Your task to perform on an android device: toggle notification dots Image 0: 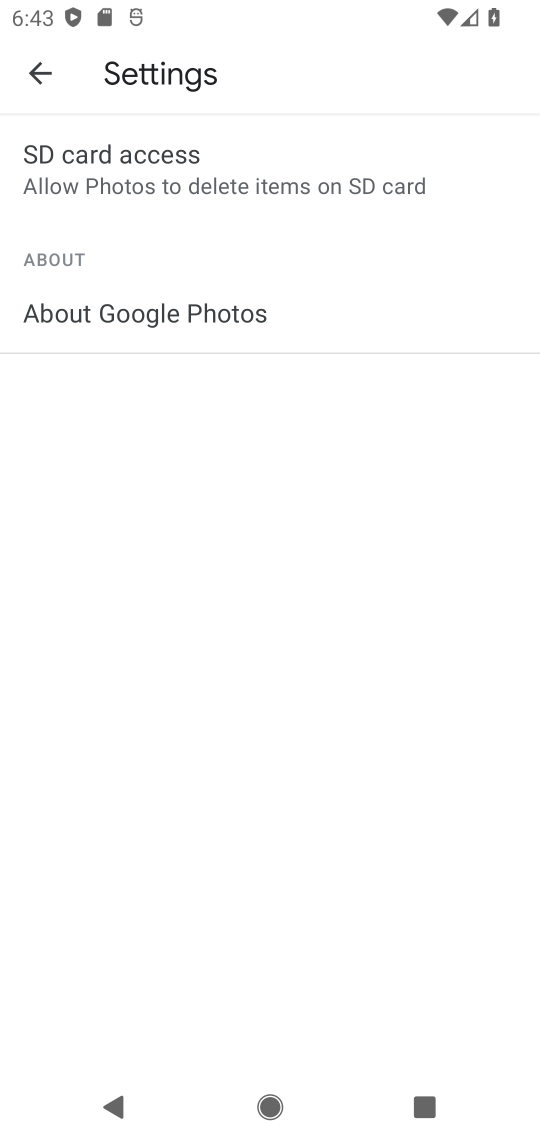
Step 0: press home button
Your task to perform on an android device: toggle notification dots Image 1: 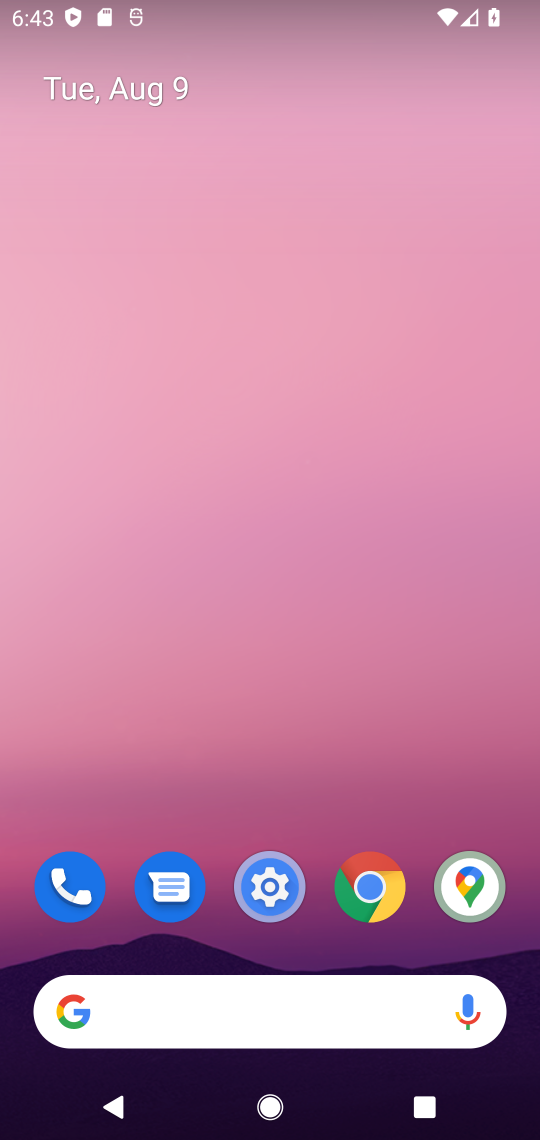
Step 1: click (263, 886)
Your task to perform on an android device: toggle notification dots Image 2: 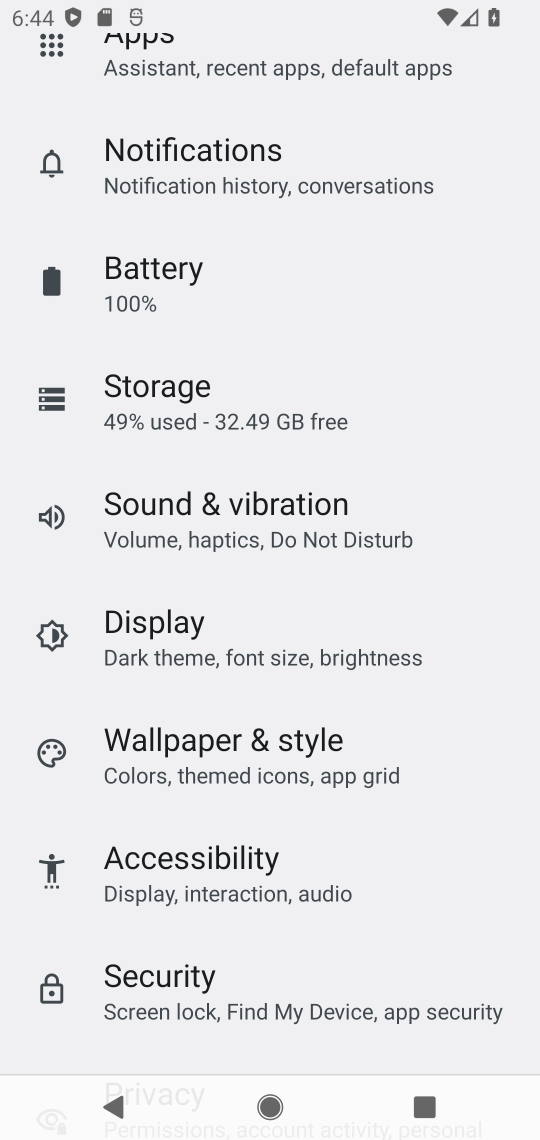
Step 2: click (322, 162)
Your task to perform on an android device: toggle notification dots Image 3: 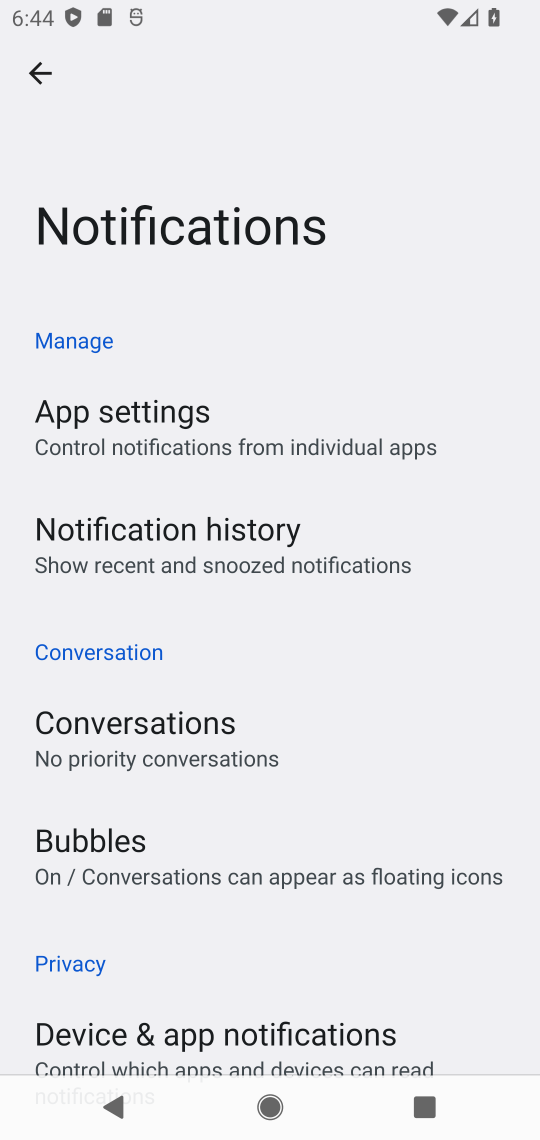
Step 3: drag from (283, 937) to (340, 23)
Your task to perform on an android device: toggle notification dots Image 4: 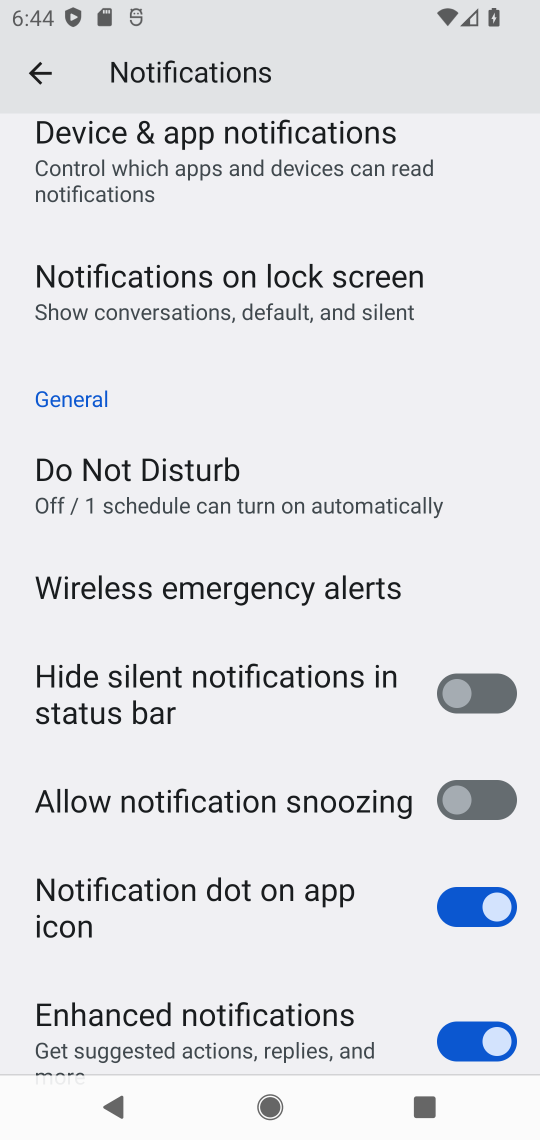
Step 4: click (486, 908)
Your task to perform on an android device: toggle notification dots Image 5: 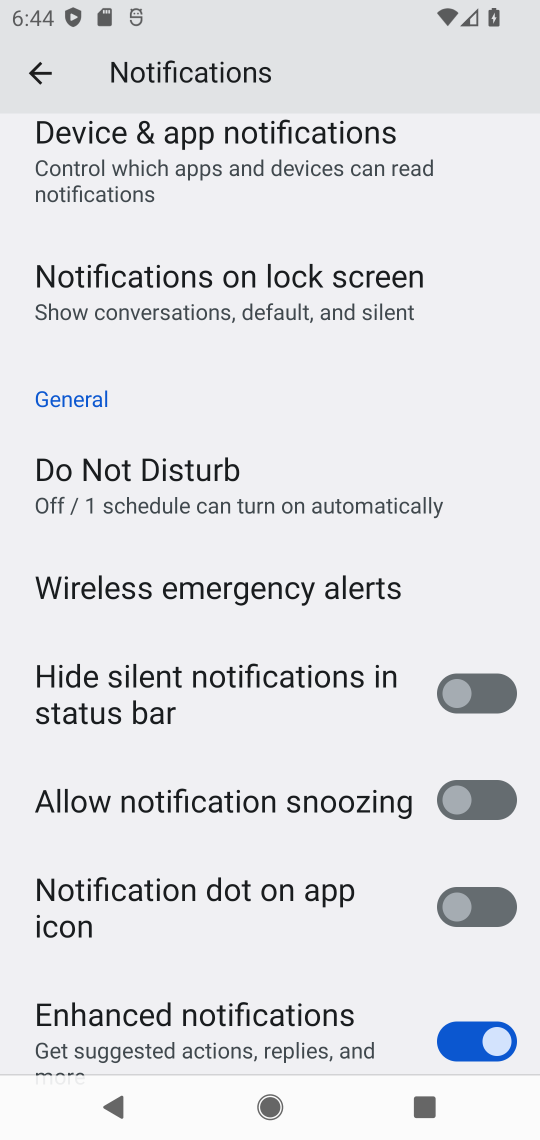
Step 5: task complete